Your task to perform on an android device: allow notifications from all sites in the chrome app Image 0: 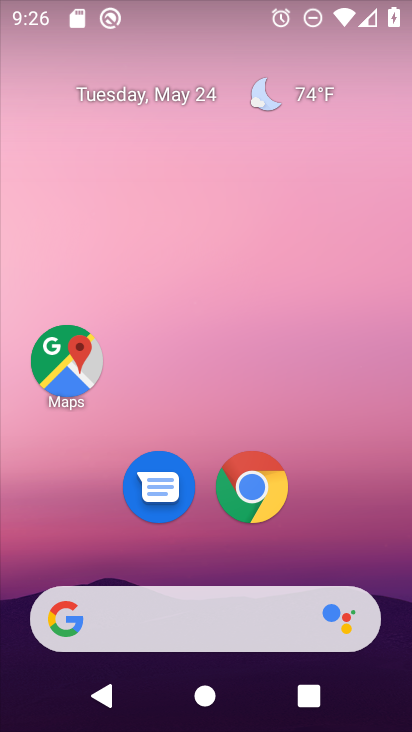
Step 0: click (259, 490)
Your task to perform on an android device: allow notifications from all sites in the chrome app Image 1: 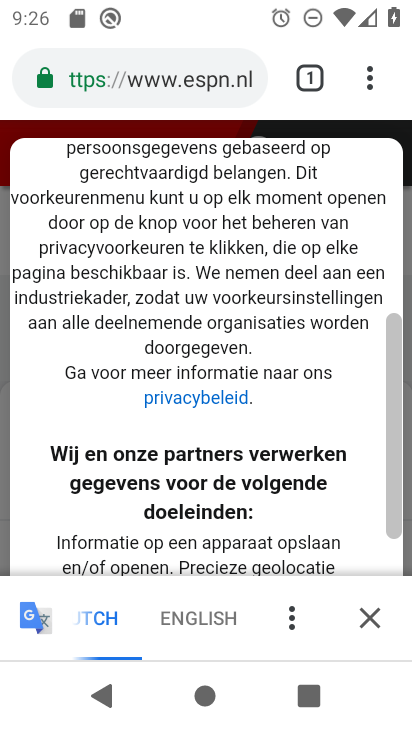
Step 1: click (373, 77)
Your task to perform on an android device: allow notifications from all sites in the chrome app Image 2: 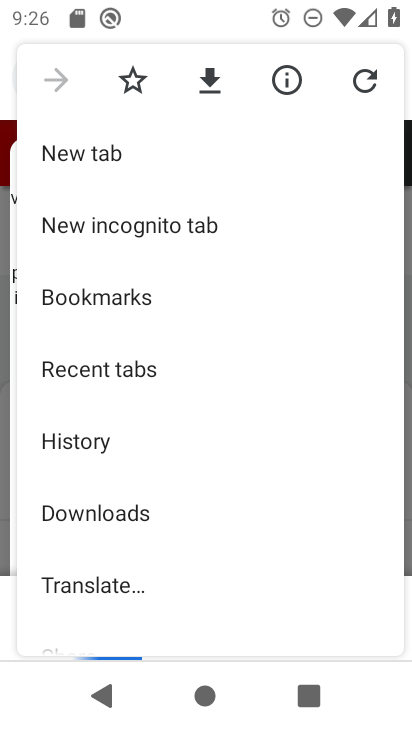
Step 2: drag from (214, 559) to (207, 170)
Your task to perform on an android device: allow notifications from all sites in the chrome app Image 3: 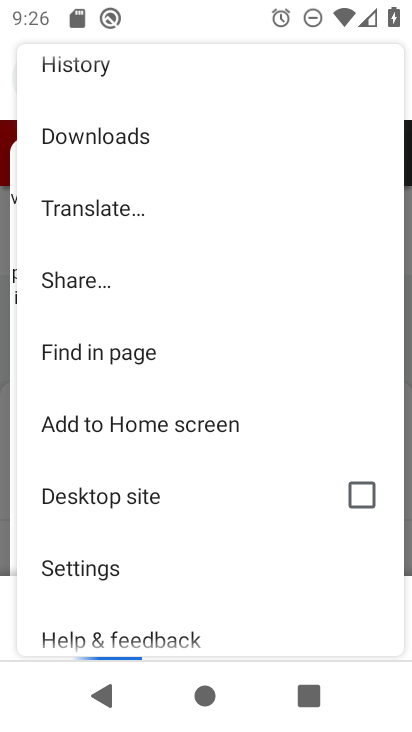
Step 3: drag from (164, 542) to (145, 245)
Your task to perform on an android device: allow notifications from all sites in the chrome app Image 4: 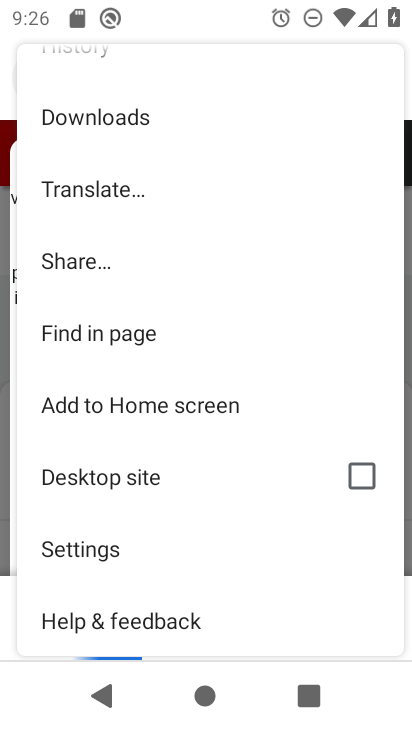
Step 4: click (93, 555)
Your task to perform on an android device: allow notifications from all sites in the chrome app Image 5: 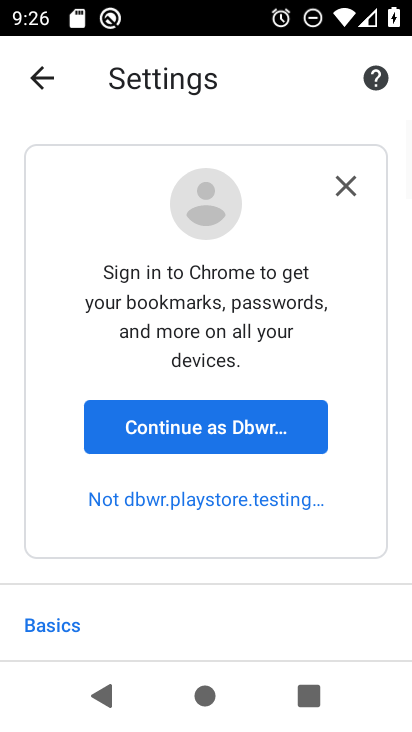
Step 5: drag from (226, 191) to (218, 106)
Your task to perform on an android device: allow notifications from all sites in the chrome app Image 6: 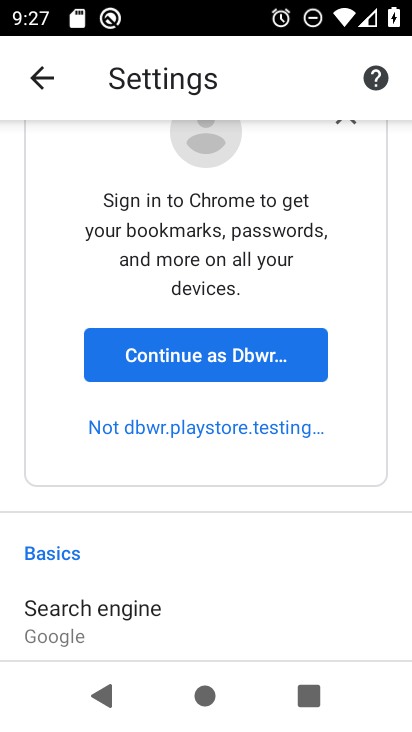
Step 6: drag from (241, 558) to (173, 53)
Your task to perform on an android device: allow notifications from all sites in the chrome app Image 7: 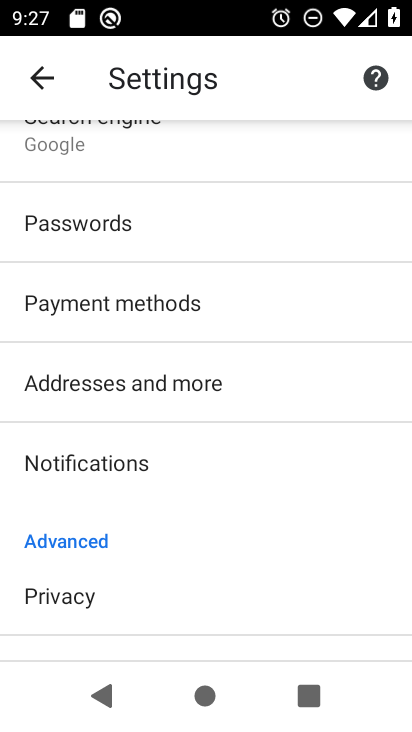
Step 7: drag from (166, 486) to (167, 108)
Your task to perform on an android device: allow notifications from all sites in the chrome app Image 8: 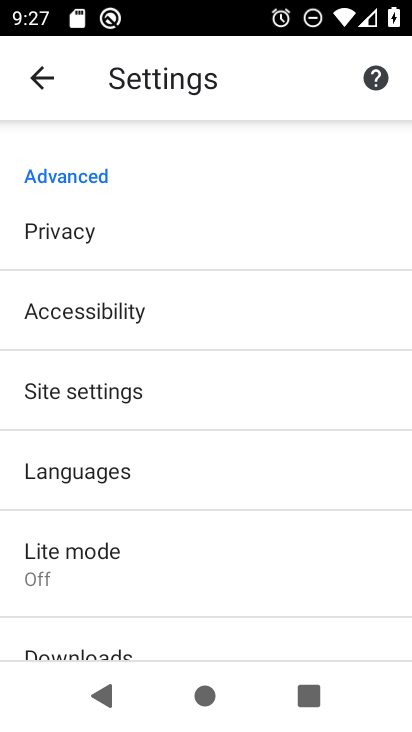
Step 8: click (89, 399)
Your task to perform on an android device: allow notifications from all sites in the chrome app Image 9: 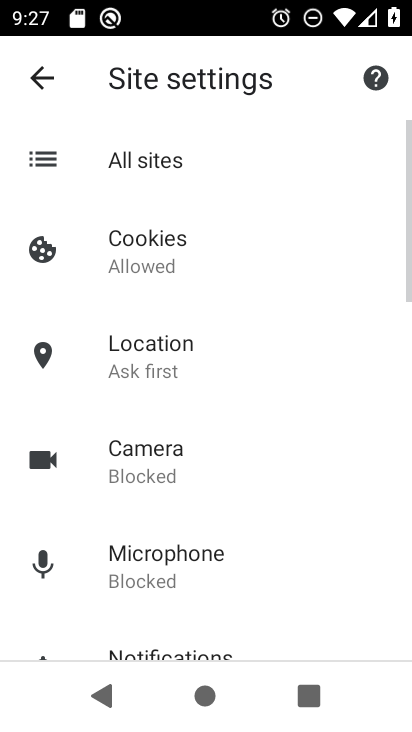
Step 9: drag from (247, 485) to (224, 202)
Your task to perform on an android device: allow notifications from all sites in the chrome app Image 10: 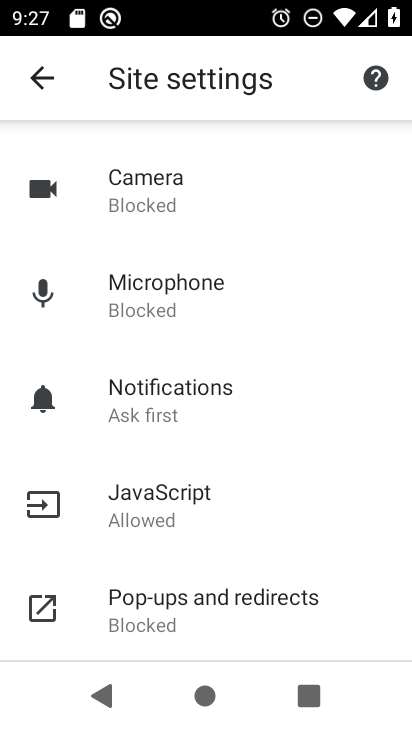
Step 10: click (164, 407)
Your task to perform on an android device: allow notifications from all sites in the chrome app Image 11: 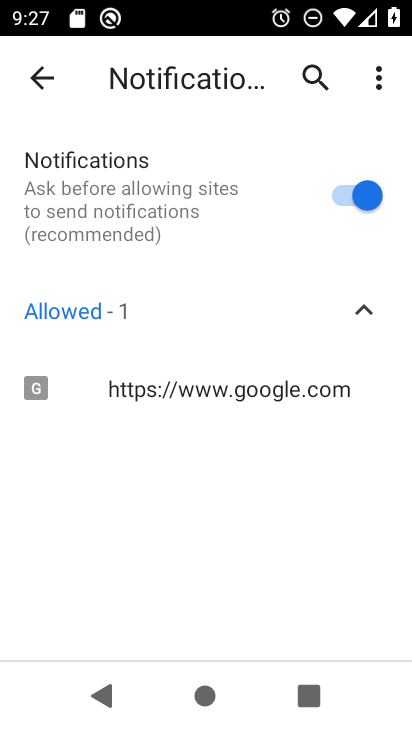
Step 11: task complete